Your task to perform on an android device: manage bookmarks in the chrome app Image 0: 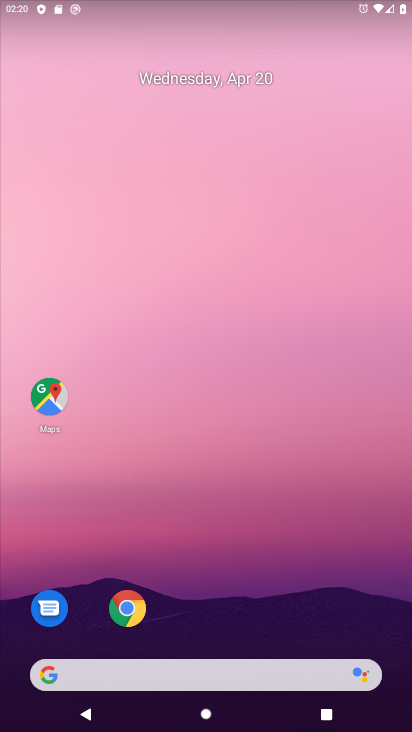
Step 0: click (119, 600)
Your task to perform on an android device: manage bookmarks in the chrome app Image 1: 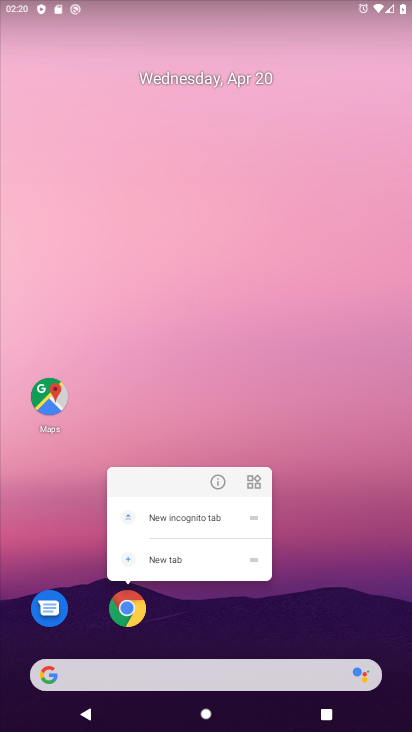
Step 1: click (120, 600)
Your task to perform on an android device: manage bookmarks in the chrome app Image 2: 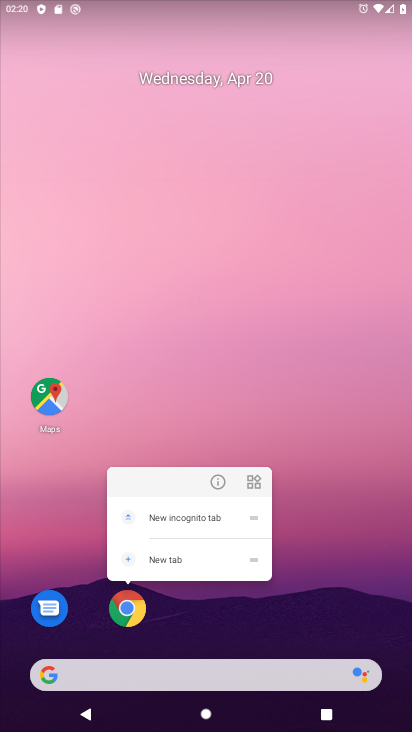
Step 2: click (122, 602)
Your task to perform on an android device: manage bookmarks in the chrome app Image 3: 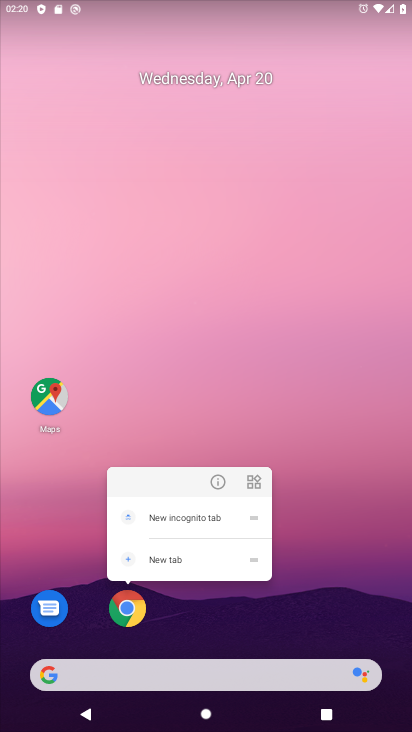
Step 3: click (122, 602)
Your task to perform on an android device: manage bookmarks in the chrome app Image 4: 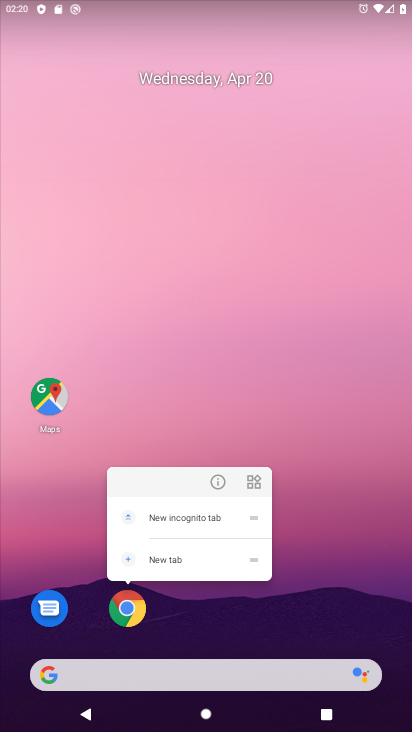
Step 4: click (123, 602)
Your task to perform on an android device: manage bookmarks in the chrome app Image 5: 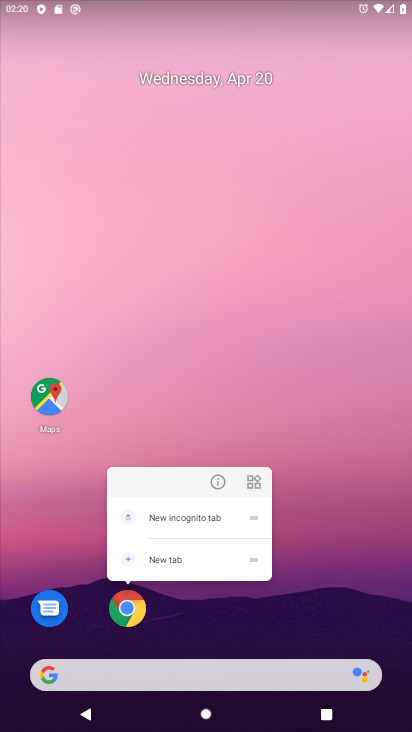
Step 5: click (131, 610)
Your task to perform on an android device: manage bookmarks in the chrome app Image 6: 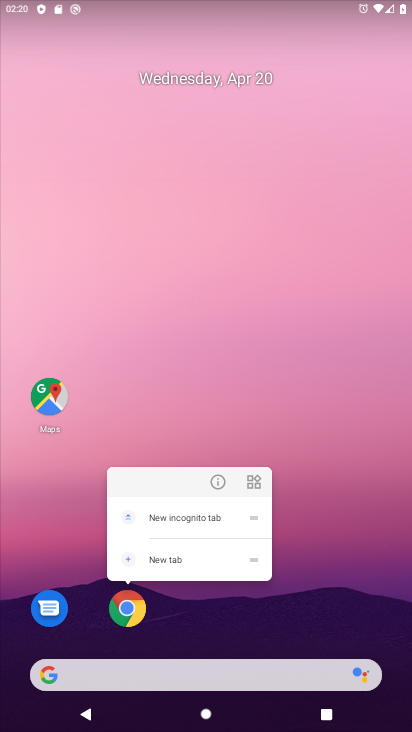
Step 6: click (147, 621)
Your task to perform on an android device: manage bookmarks in the chrome app Image 7: 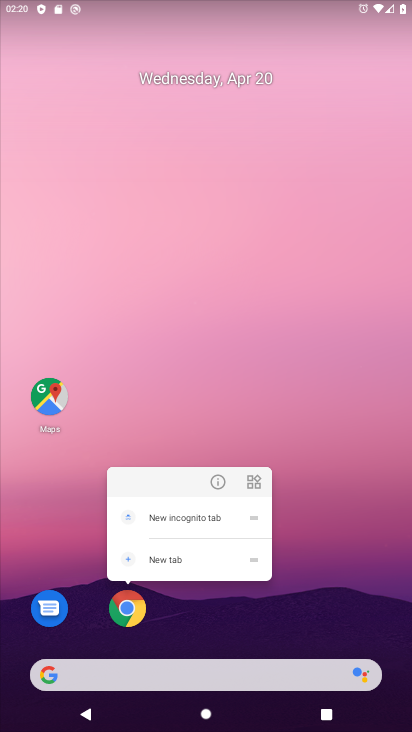
Step 7: click (136, 624)
Your task to perform on an android device: manage bookmarks in the chrome app Image 8: 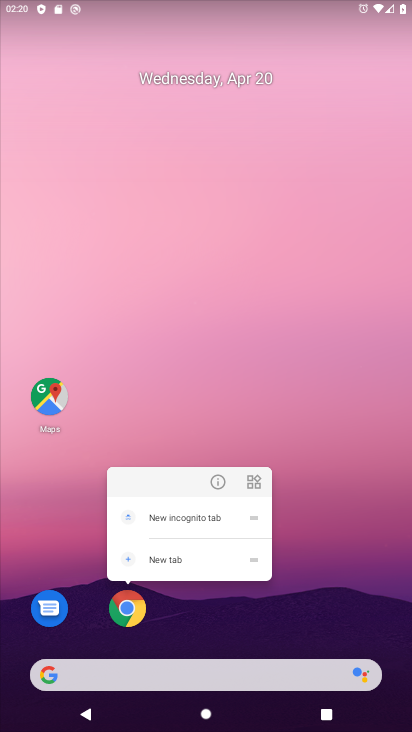
Step 8: click (133, 624)
Your task to perform on an android device: manage bookmarks in the chrome app Image 9: 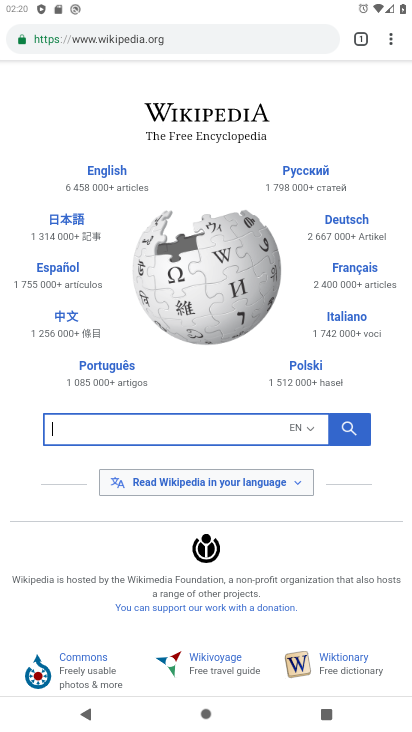
Step 9: click (389, 31)
Your task to perform on an android device: manage bookmarks in the chrome app Image 10: 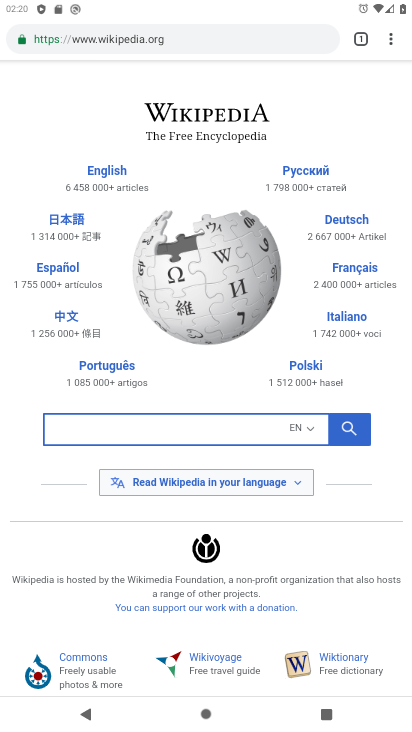
Step 10: click (386, 27)
Your task to perform on an android device: manage bookmarks in the chrome app Image 11: 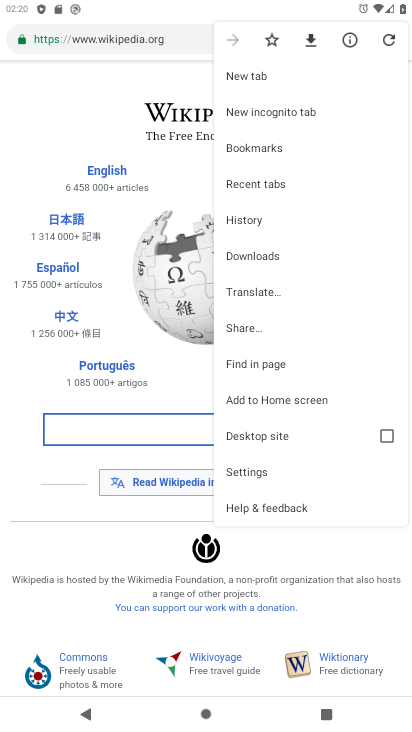
Step 11: click (278, 153)
Your task to perform on an android device: manage bookmarks in the chrome app Image 12: 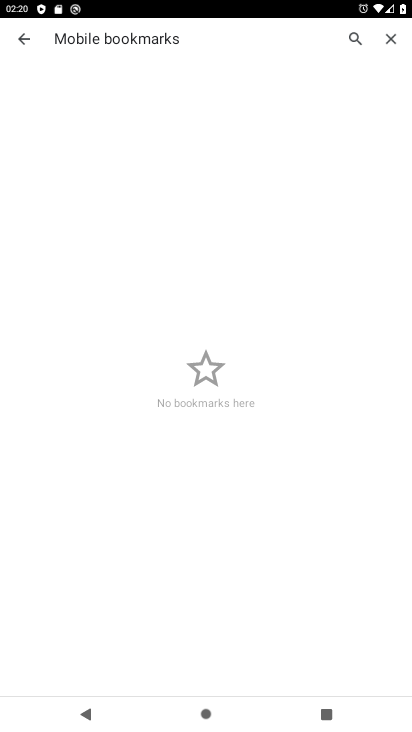
Step 12: click (24, 42)
Your task to perform on an android device: manage bookmarks in the chrome app Image 13: 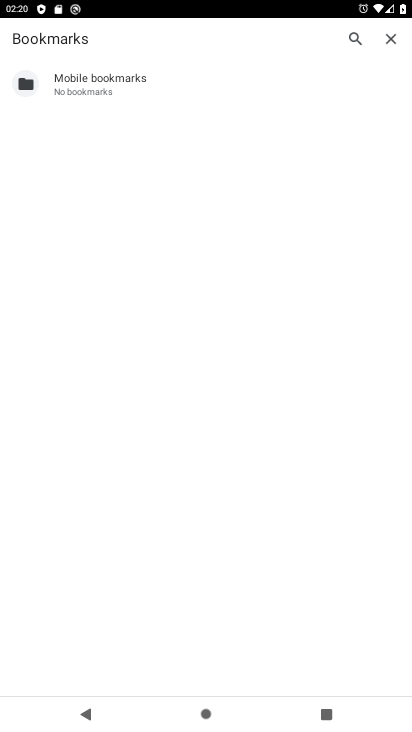
Step 13: click (394, 45)
Your task to perform on an android device: manage bookmarks in the chrome app Image 14: 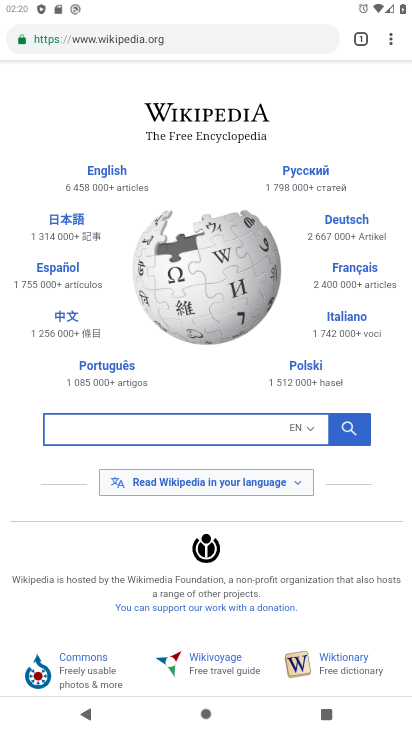
Step 14: click (394, 45)
Your task to perform on an android device: manage bookmarks in the chrome app Image 15: 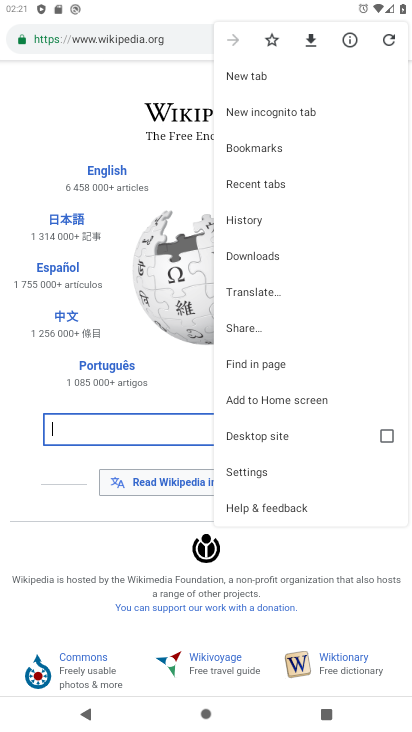
Step 15: click (272, 34)
Your task to perform on an android device: manage bookmarks in the chrome app Image 16: 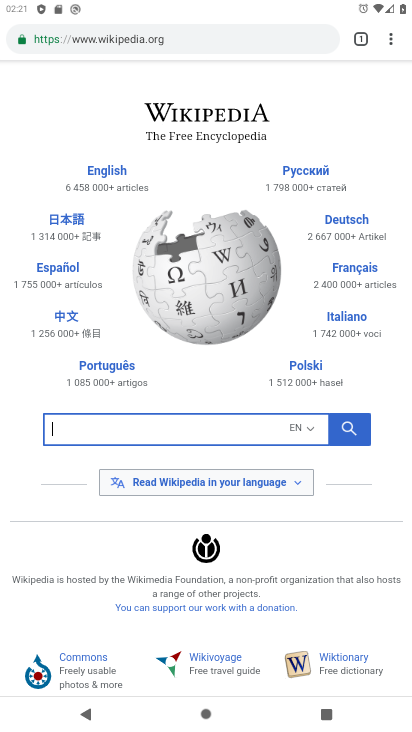
Step 16: task complete